Your task to perform on an android device: Show me popular games on the Play Store Image 0: 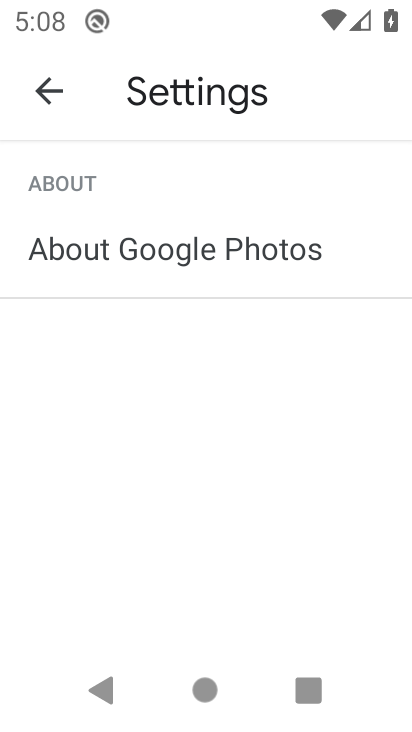
Step 0: click (37, 80)
Your task to perform on an android device: Show me popular games on the Play Store Image 1: 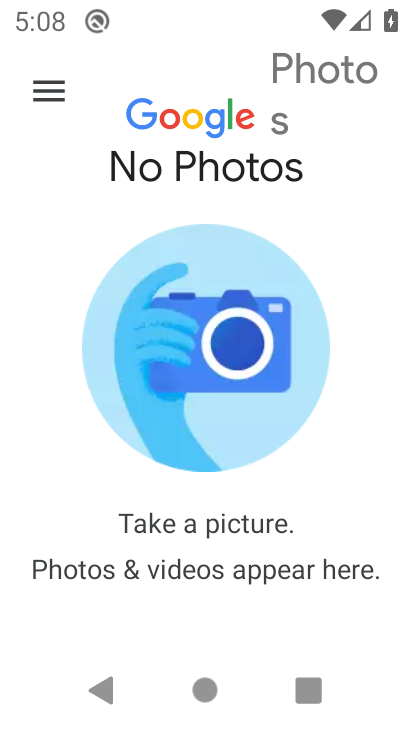
Step 1: press back button
Your task to perform on an android device: Show me popular games on the Play Store Image 2: 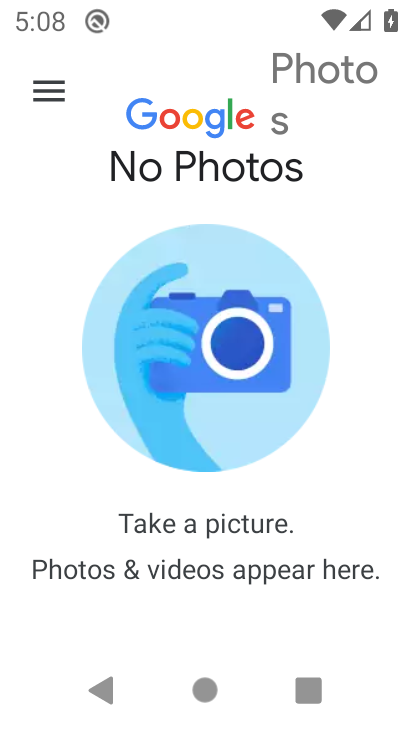
Step 2: press back button
Your task to perform on an android device: Show me popular games on the Play Store Image 3: 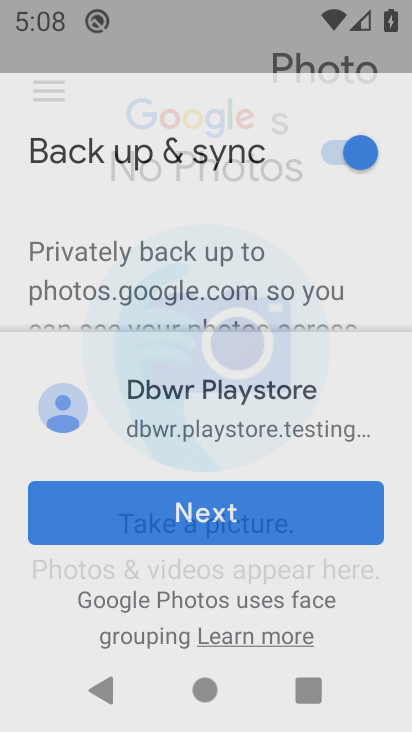
Step 3: press back button
Your task to perform on an android device: Show me popular games on the Play Store Image 4: 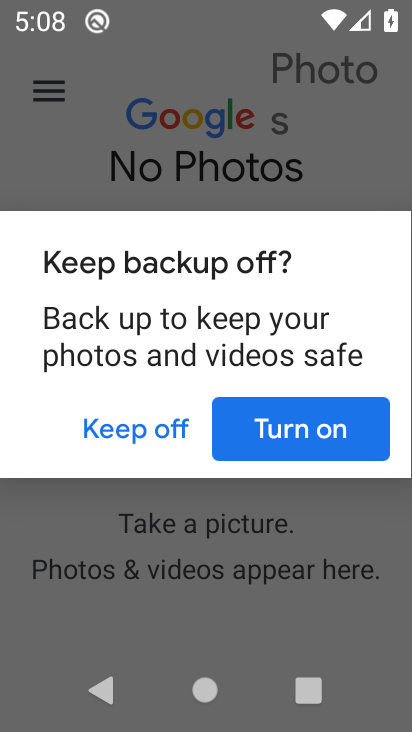
Step 4: click (167, 420)
Your task to perform on an android device: Show me popular games on the Play Store Image 5: 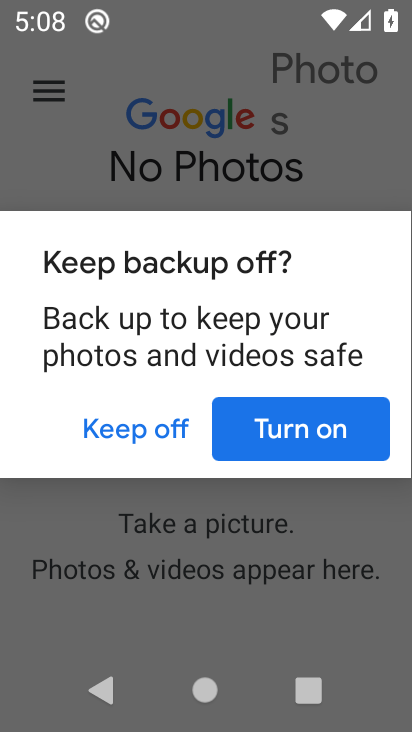
Step 5: click (166, 420)
Your task to perform on an android device: Show me popular games on the Play Store Image 6: 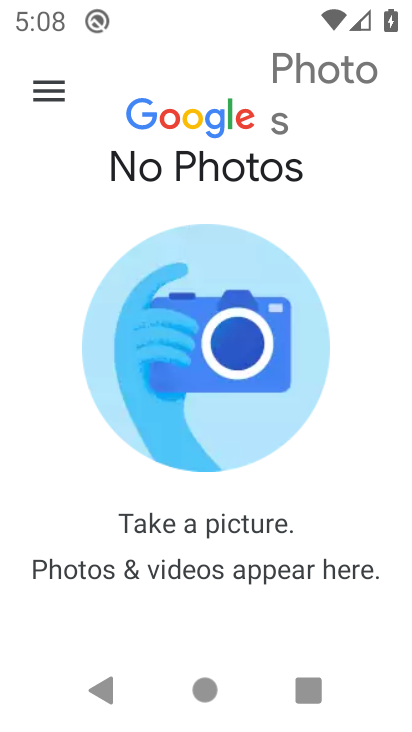
Step 6: click (164, 419)
Your task to perform on an android device: Show me popular games on the Play Store Image 7: 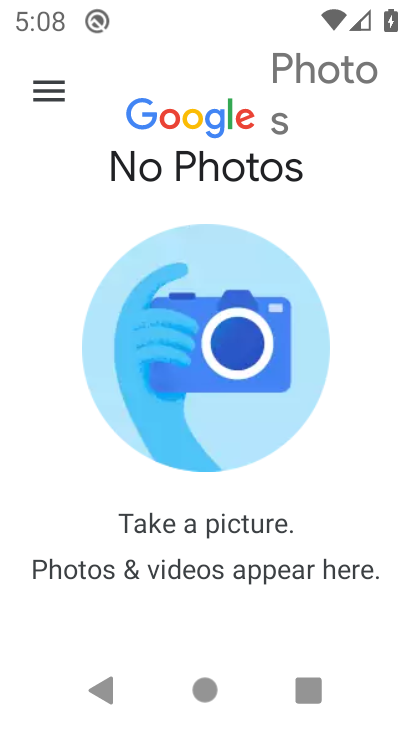
Step 7: press home button
Your task to perform on an android device: Show me popular games on the Play Store Image 8: 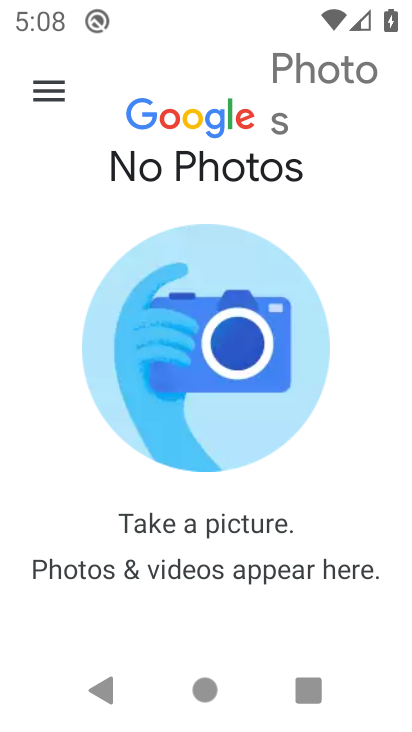
Step 8: press home button
Your task to perform on an android device: Show me popular games on the Play Store Image 9: 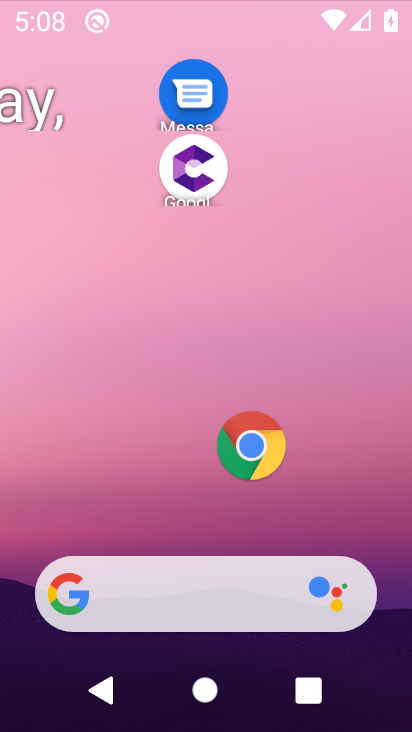
Step 9: press home button
Your task to perform on an android device: Show me popular games on the Play Store Image 10: 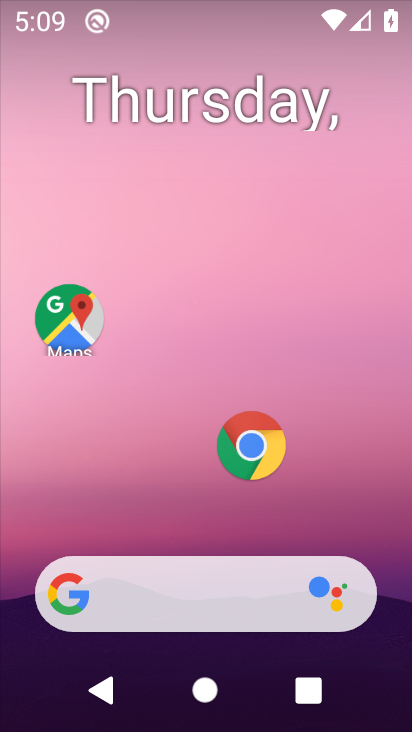
Step 10: drag from (341, 638) to (72, 236)
Your task to perform on an android device: Show me popular games on the Play Store Image 11: 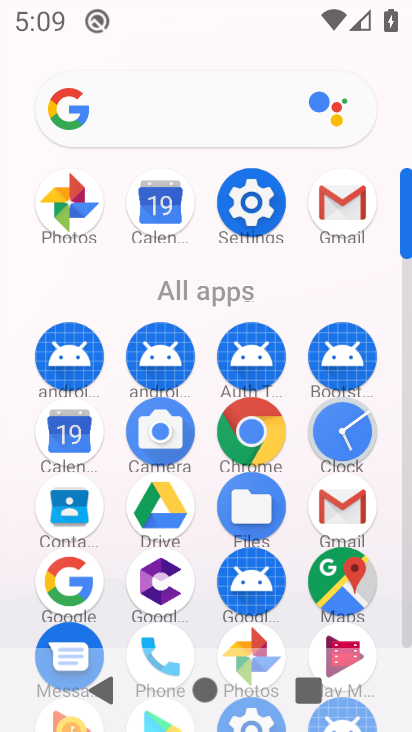
Step 11: drag from (265, 644) to (198, 235)
Your task to perform on an android device: Show me popular games on the Play Store Image 12: 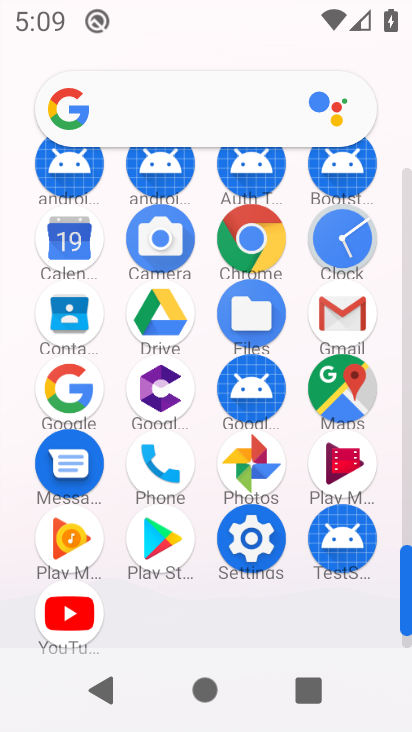
Step 12: drag from (243, 404) to (229, 111)
Your task to perform on an android device: Show me popular games on the Play Store Image 13: 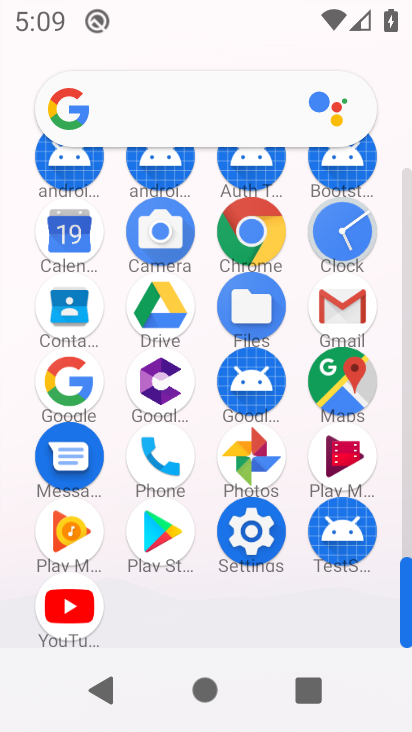
Step 13: drag from (267, 571) to (233, 158)
Your task to perform on an android device: Show me popular games on the Play Store Image 14: 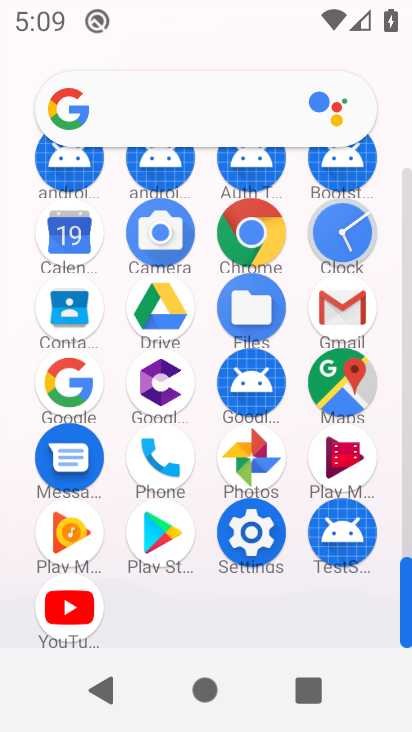
Step 14: click (158, 538)
Your task to perform on an android device: Show me popular games on the Play Store Image 15: 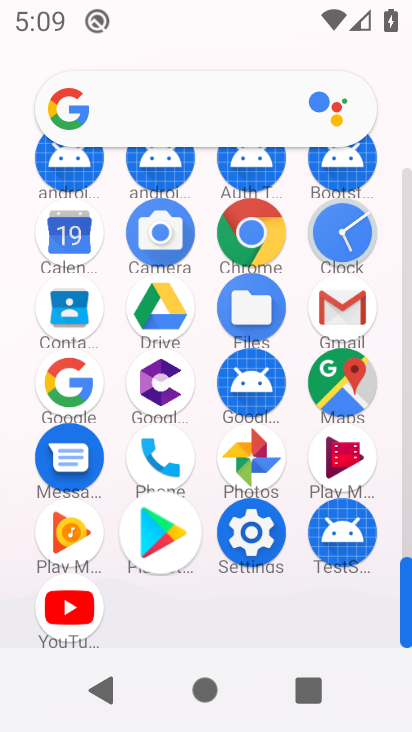
Step 15: click (158, 538)
Your task to perform on an android device: Show me popular games on the Play Store Image 16: 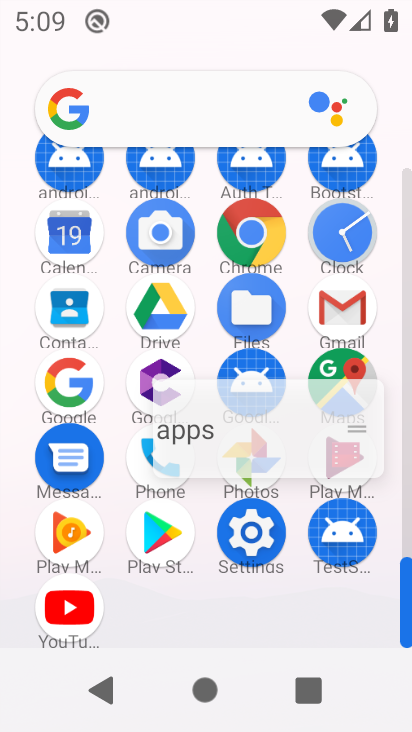
Step 16: click (158, 538)
Your task to perform on an android device: Show me popular games on the Play Store Image 17: 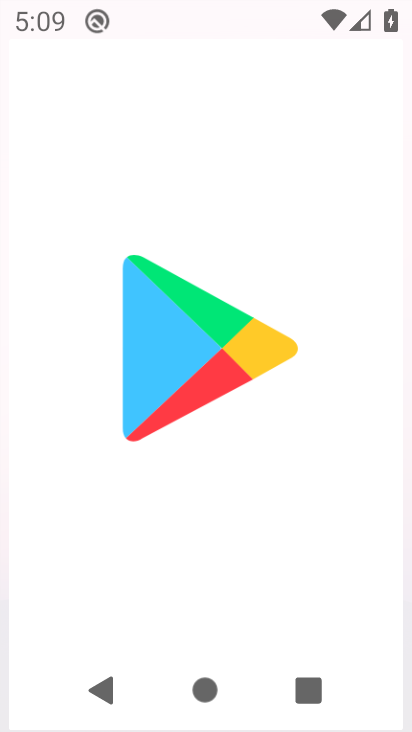
Step 17: click (158, 539)
Your task to perform on an android device: Show me popular games on the Play Store Image 18: 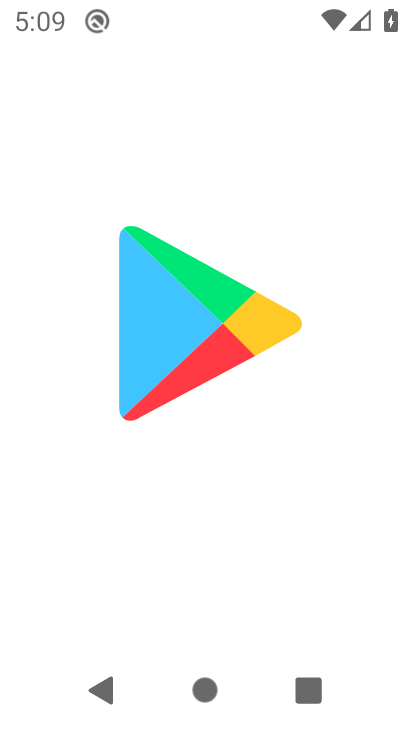
Step 18: click (158, 539)
Your task to perform on an android device: Show me popular games on the Play Store Image 19: 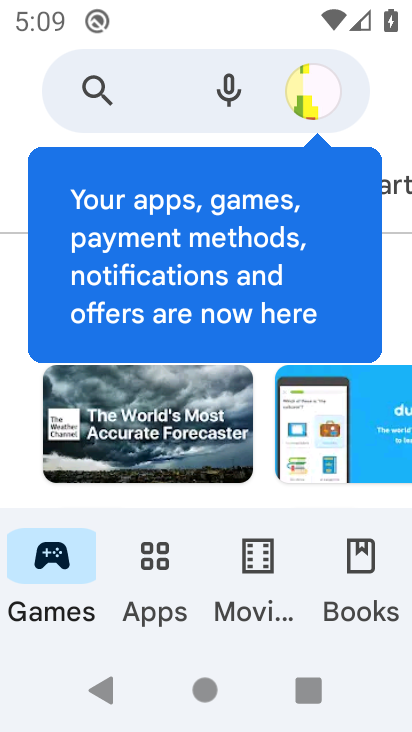
Step 19: click (133, 95)
Your task to perform on an android device: Show me popular games on the Play Store Image 20: 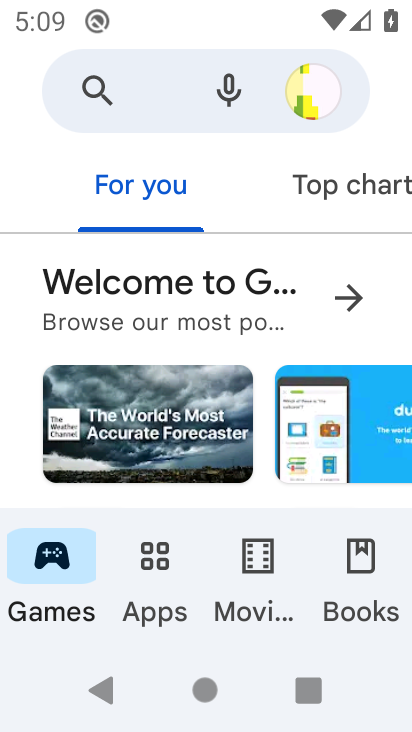
Step 20: click (130, 92)
Your task to perform on an android device: Show me popular games on the Play Store Image 21: 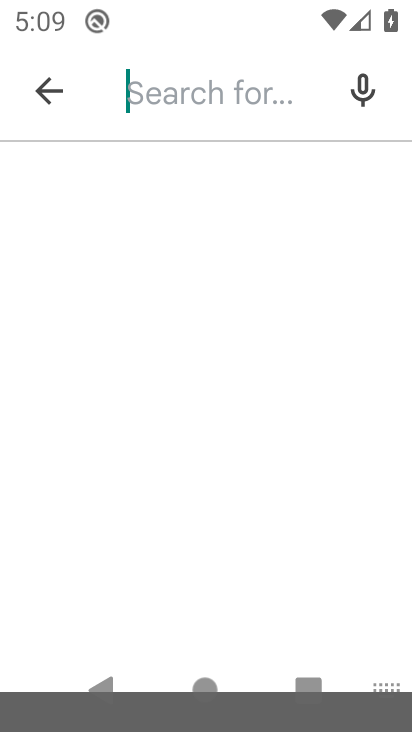
Step 21: click (129, 90)
Your task to perform on an android device: Show me popular games on the Play Store Image 22: 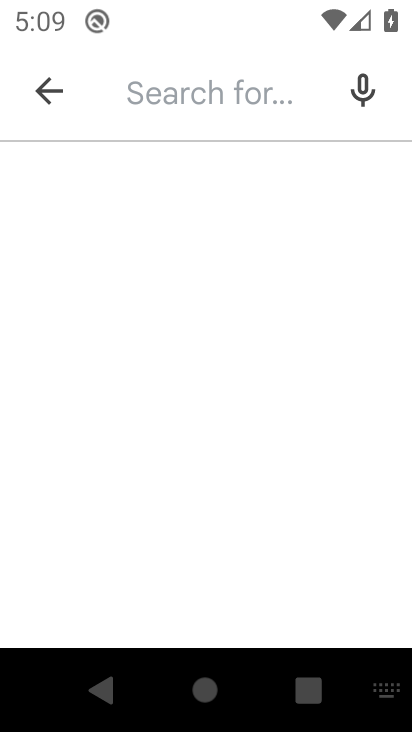
Step 22: click (128, 84)
Your task to perform on an android device: Show me popular games on the Play Store Image 23: 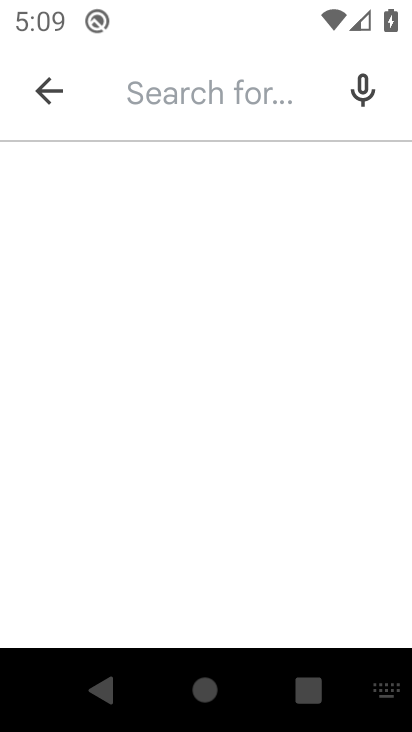
Step 23: click (134, 85)
Your task to perform on an android device: Show me popular games on the Play Store Image 24: 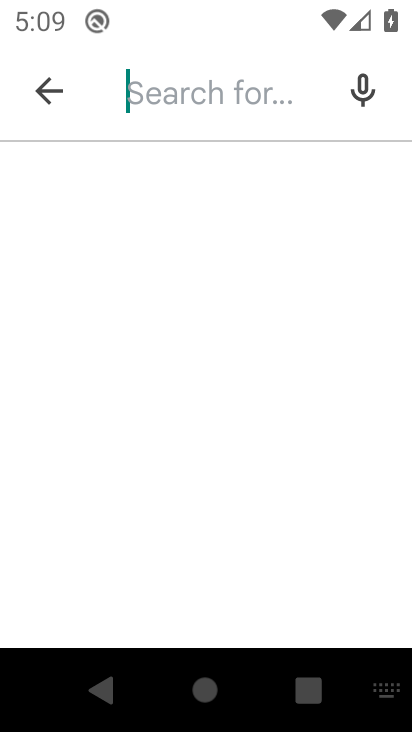
Step 24: click (136, 88)
Your task to perform on an android device: Show me popular games on the Play Store Image 25: 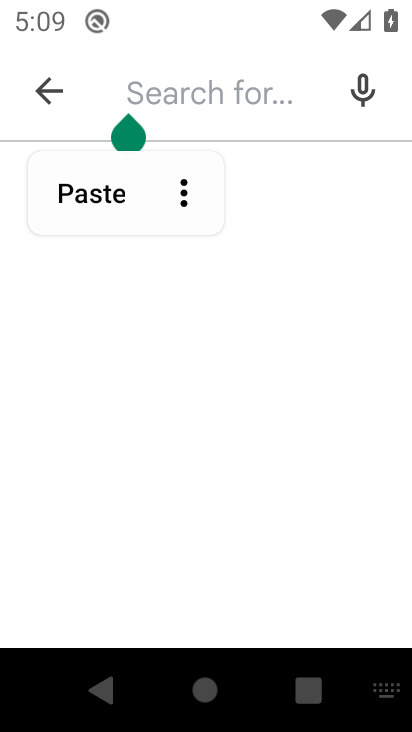
Step 25: click (137, 89)
Your task to perform on an android device: Show me popular games on the Play Store Image 26: 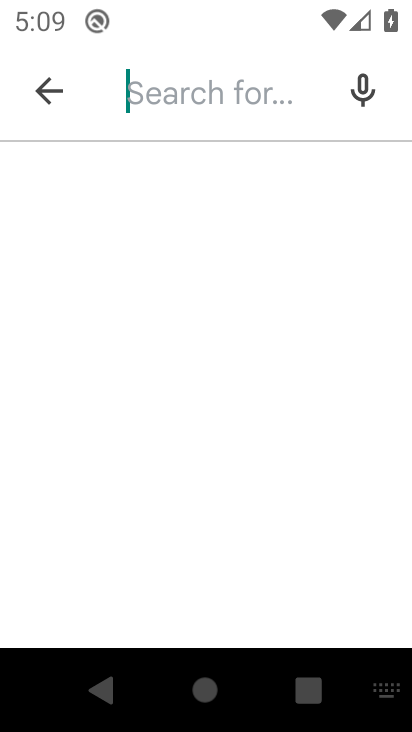
Step 26: type "popular games"
Your task to perform on an android device: Show me popular games on the Play Store Image 27: 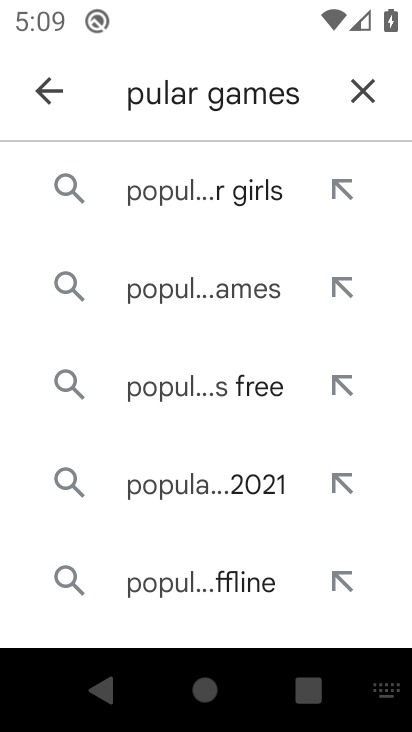
Step 27: click (228, 300)
Your task to perform on an android device: Show me popular games on the Play Store Image 28: 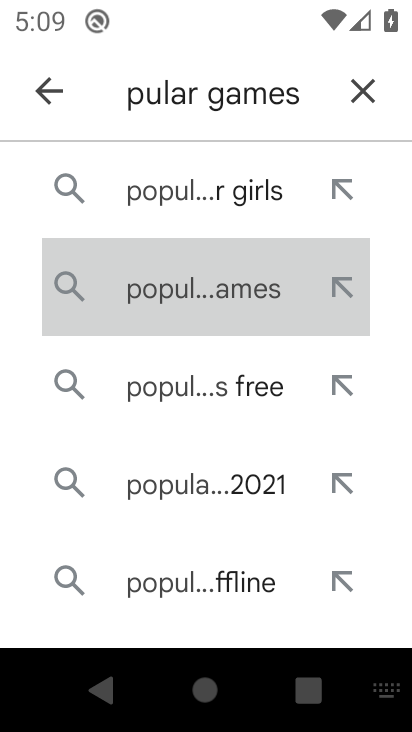
Step 28: click (228, 300)
Your task to perform on an android device: Show me popular games on the Play Store Image 29: 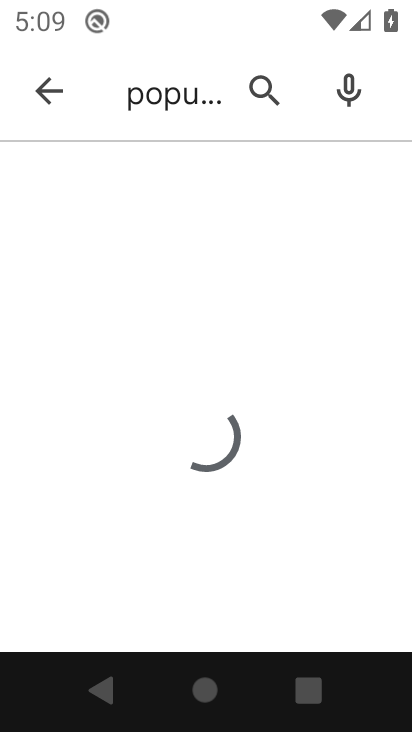
Step 29: click (229, 299)
Your task to perform on an android device: Show me popular games on the Play Store Image 30: 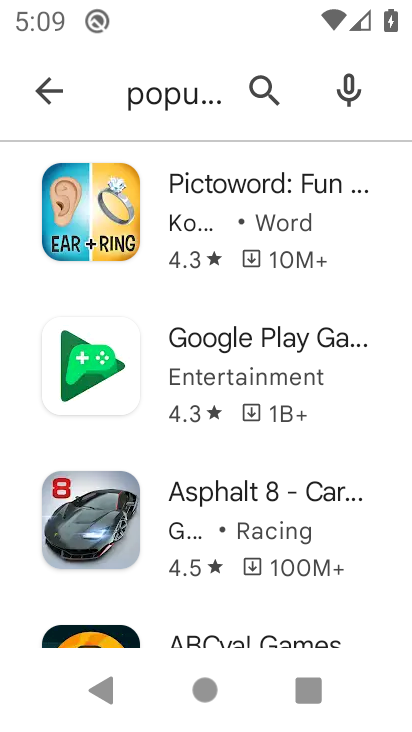
Step 30: task complete